Your task to perform on an android device: all mails in gmail Image 0: 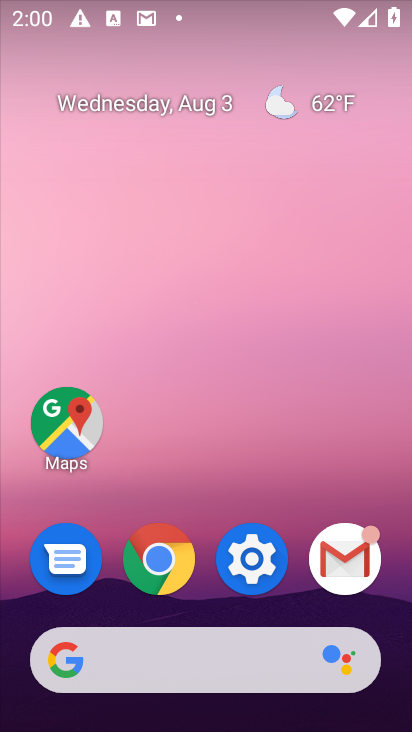
Step 0: press home button
Your task to perform on an android device: all mails in gmail Image 1: 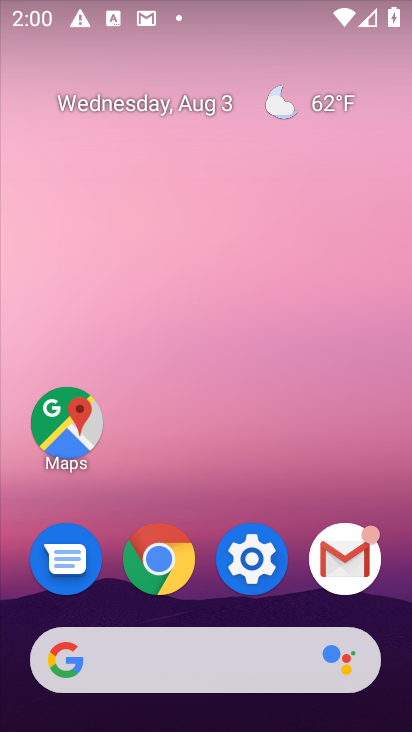
Step 1: click (336, 558)
Your task to perform on an android device: all mails in gmail Image 2: 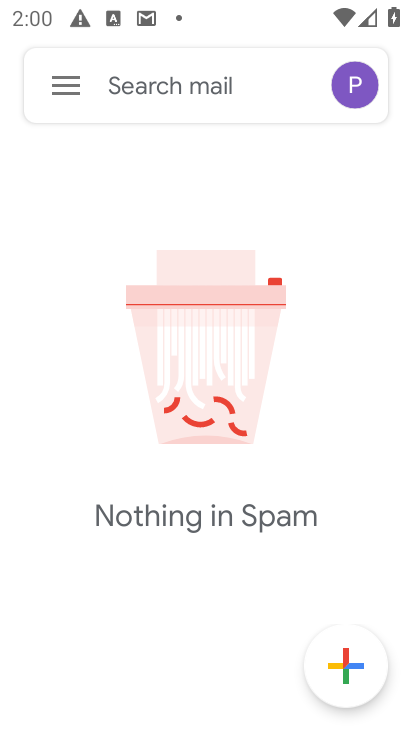
Step 2: click (64, 78)
Your task to perform on an android device: all mails in gmail Image 3: 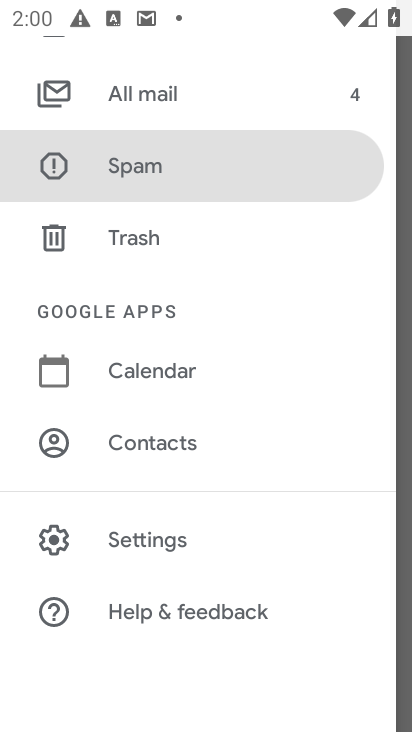
Step 3: click (157, 97)
Your task to perform on an android device: all mails in gmail Image 4: 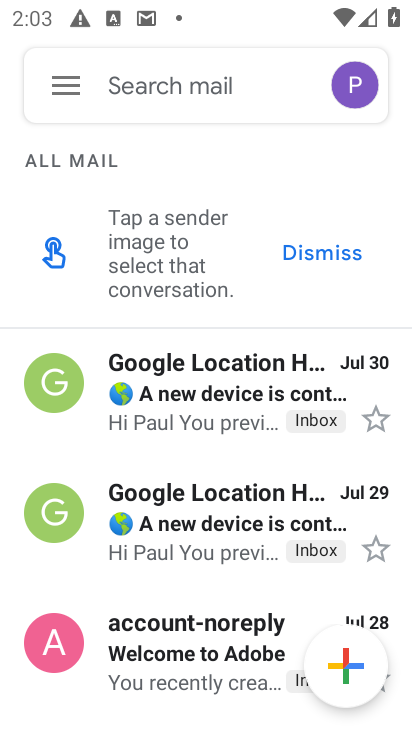
Step 4: task complete